Your task to perform on an android device: Open Amazon Image 0: 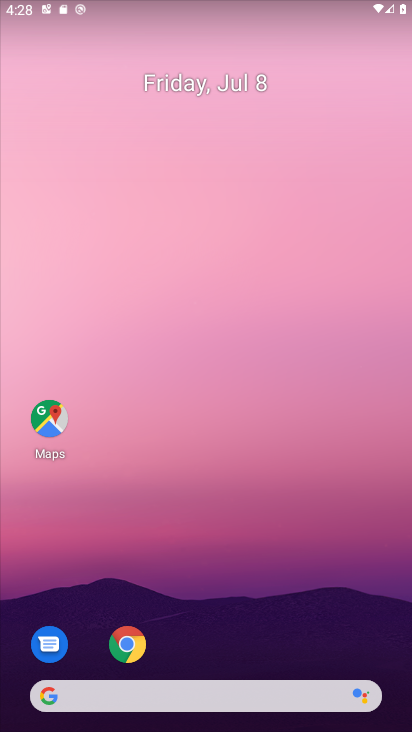
Step 0: click (130, 646)
Your task to perform on an android device: Open Amazon Image 1: 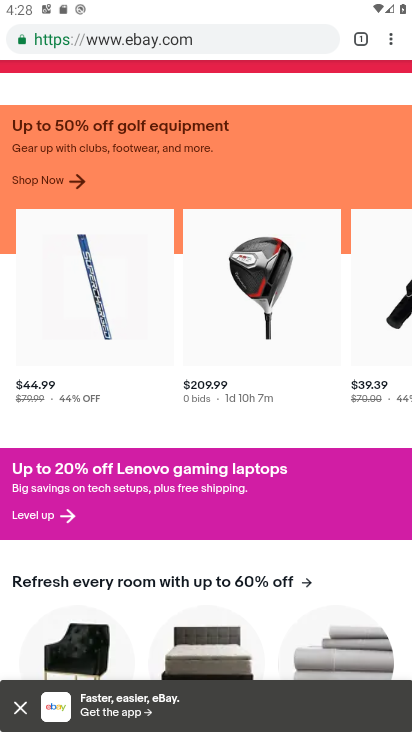
Step 1: click (221, 33)
Your task to perform on an android device: Open Amazon Image 2: 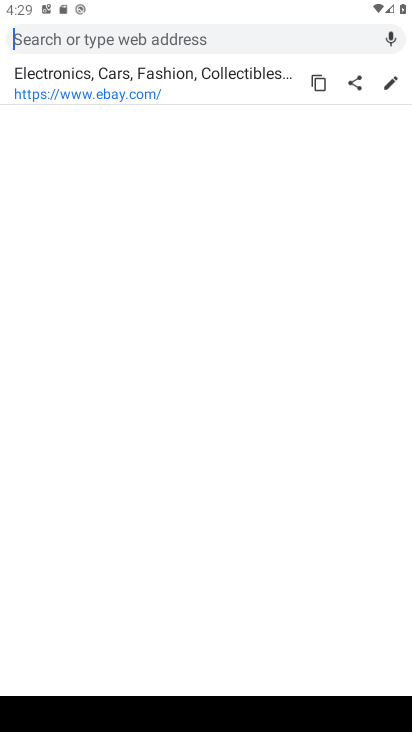
Step 2: type "Amazon"
Your task to perform on an android device: Open Amazon Image 3: 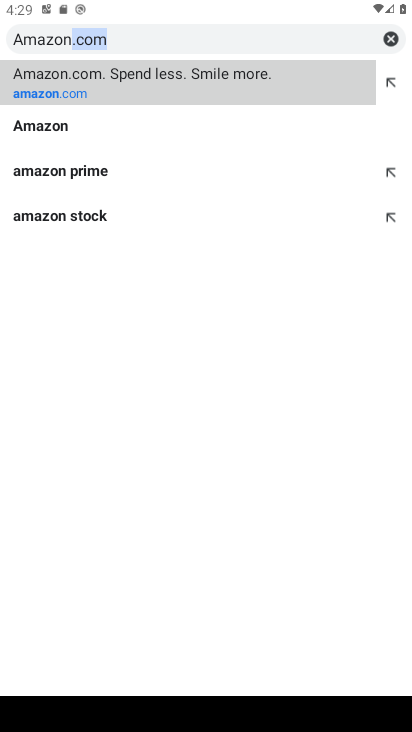
Step 3: click (61, 72)
Your task to perform on an android device: Open Amazon Image 4: 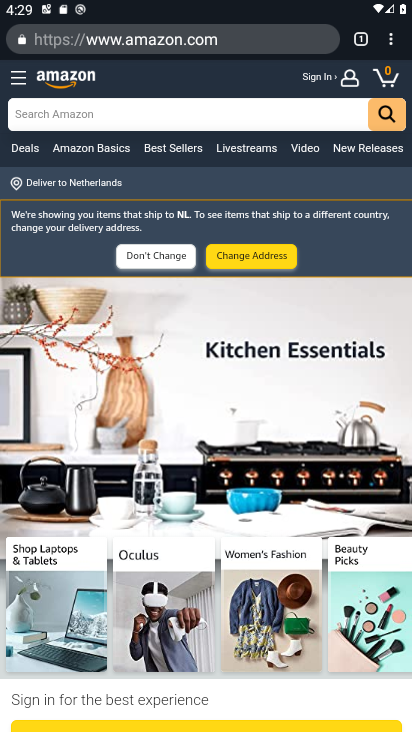
Step 4: task complete